Your task to perform on an android device: Open calendar and show me the third week of next month Image 0: 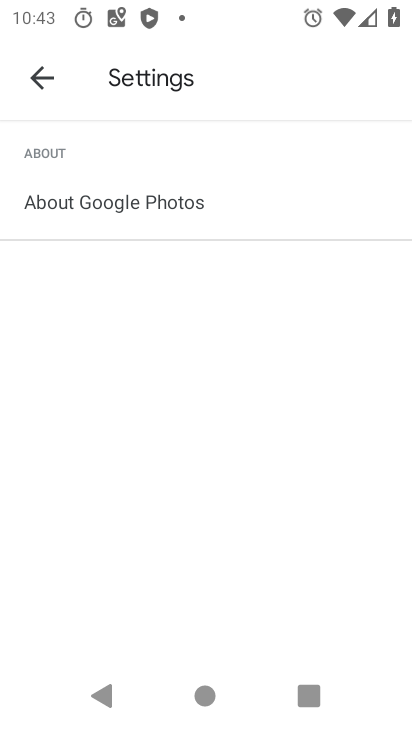
Step 0: press home button
Your task to perform on an android device: Open calendar and show me the third week of next month Image 1: 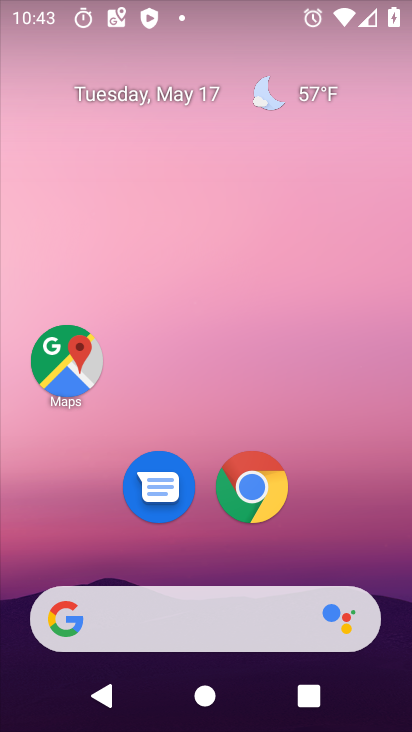
Step 1: drag from (232, 672) to (233, 87)
Your task to perform on an android device: Open calendar and show me the third week of next month Image 2: 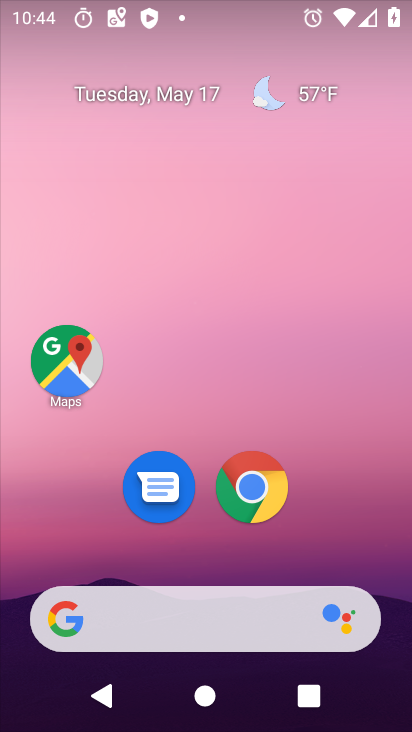
Step 2: drag from (218, 725) to (222, 62)
Your task to perform on an android device: Open calendar and show me the third week of next month Image 3: 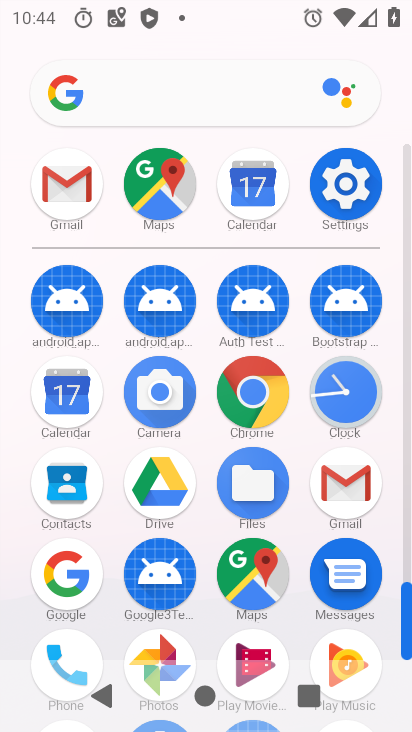
Step 3: click (63, 391)
Your task to perform on an android device: Open calendar and show me the third week of next month Image 4: 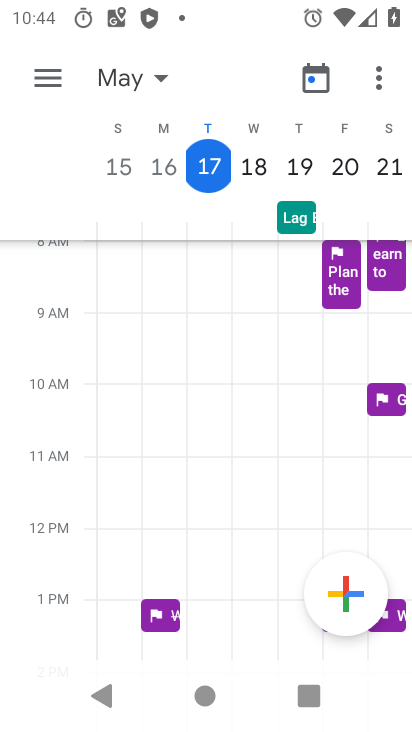
Step 4: click (161, 75)
Your task to perform on an android device: Open calendar and show me the third week of next month Image 5: 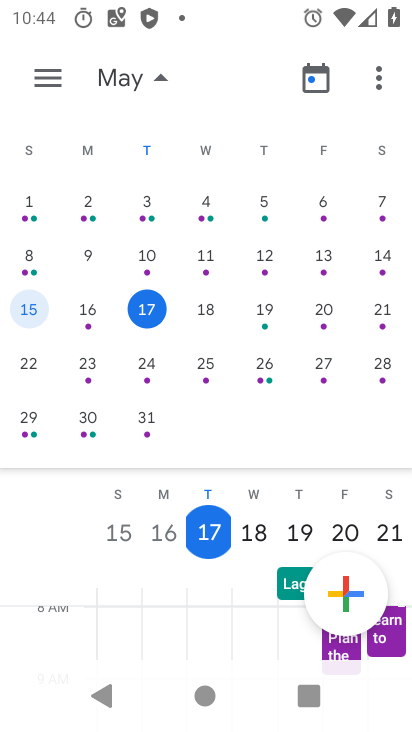
Step 5: drag from (363, 292) to (33, 303)
Your task to perform on an android device: Open calendar and show me the third week of next month Image 6: 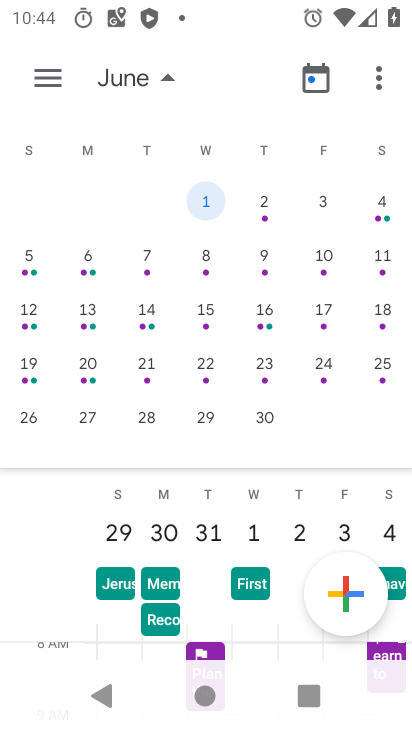
Step 6: click (87, 360)
Your task to perform on an android device: Open calendar and show me the third week of next month Image 7: 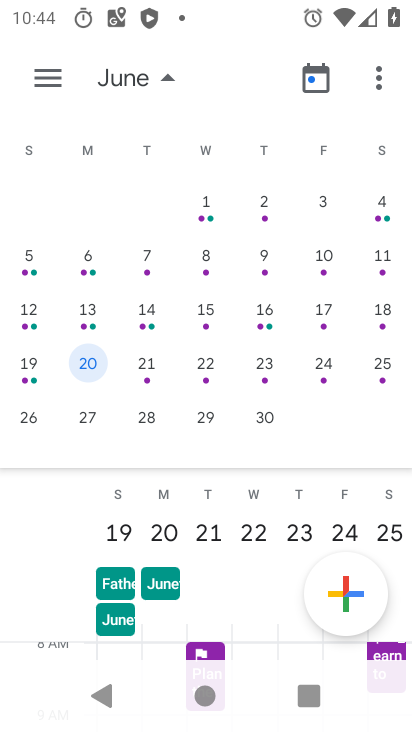
Step 7: task complete